Your task to perform on an android device: change alarm snooze length Image 0: 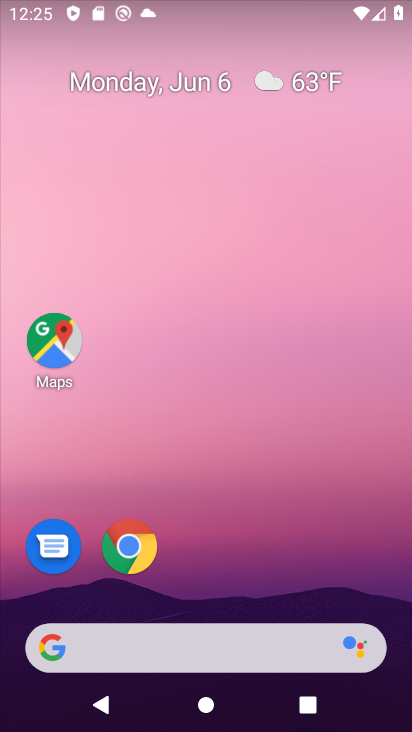
Step 0: drag from (219, 605) to (236, 8)
Your task to perform on an android device: change alarm snooze length Image 1: 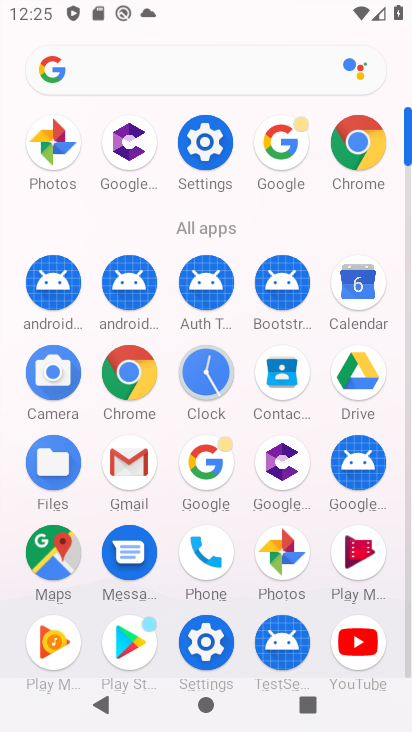
Step 1: click (215, 386)
Your task to perform on an android device: change alarm snooze length Image 2: 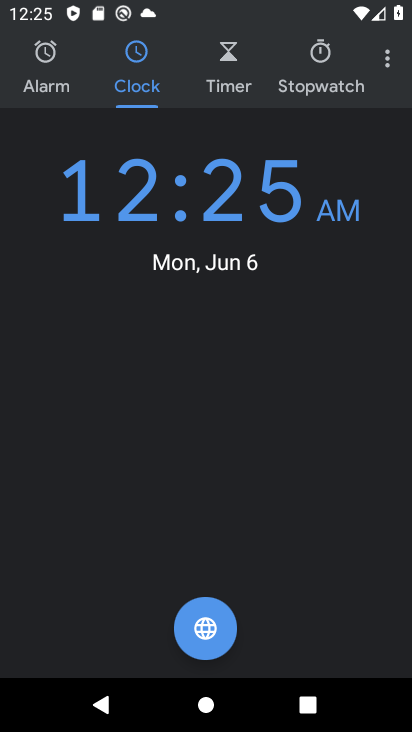
Step 2: drag from (387, 59) to (304, 106)
Your task to perform on an android device: change alarm snooze length Image 3: 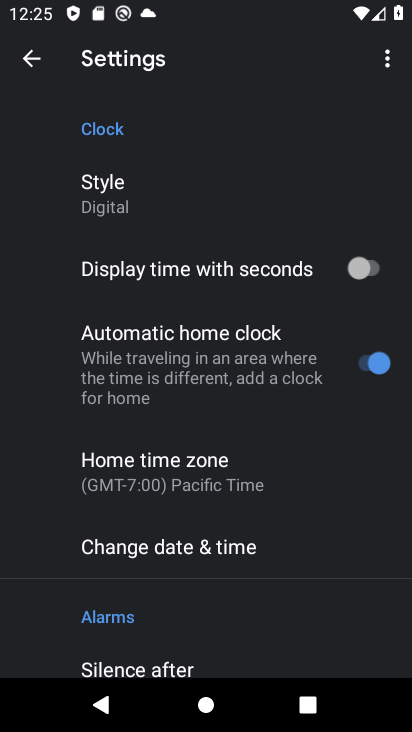
Step 3: drag from (211, 623) to (151, 218)
Your task to perform on an android device: change alarm snooze length Image 4: 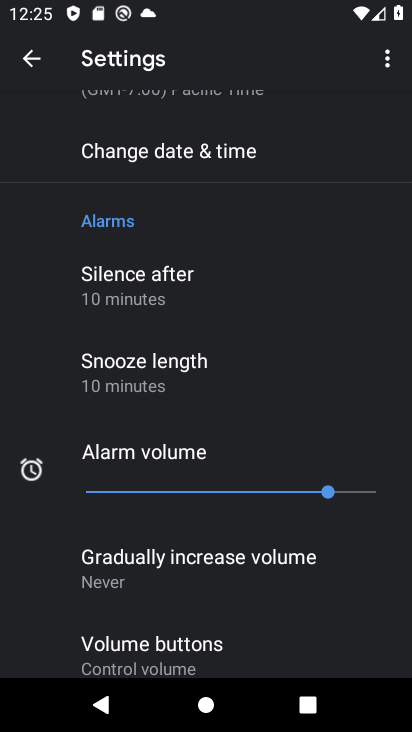
Step 4: click (133, 376)
Your task to perform on an android device: change alarm snooze length Image 5: 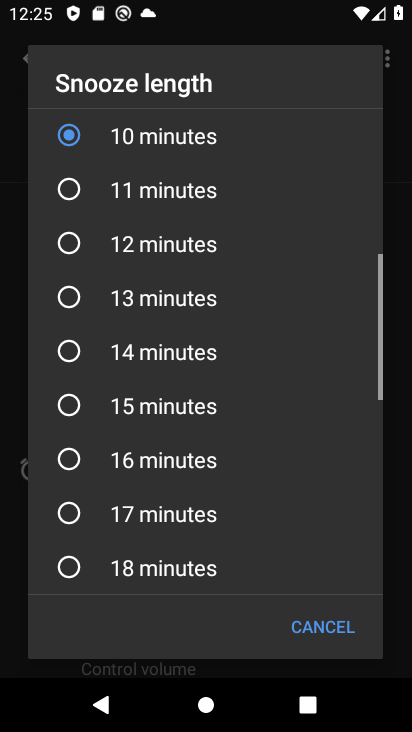
Step 5: click (114, 202)
Your task to perform on an android device: change alarm snooze length Image 6: 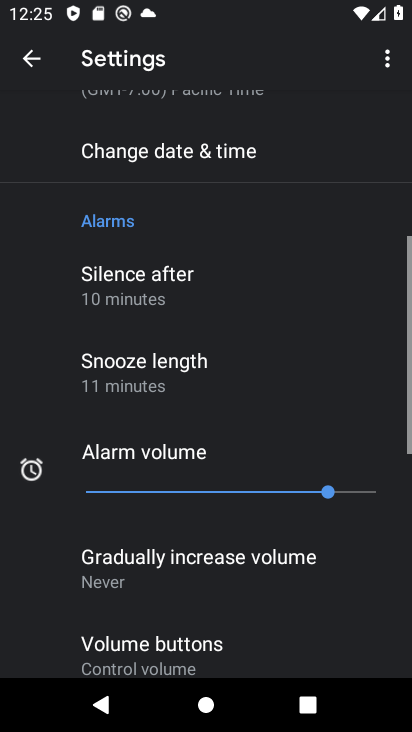
Step 6: task complete